Your task to perform on an android device: Open eBay Image 0: 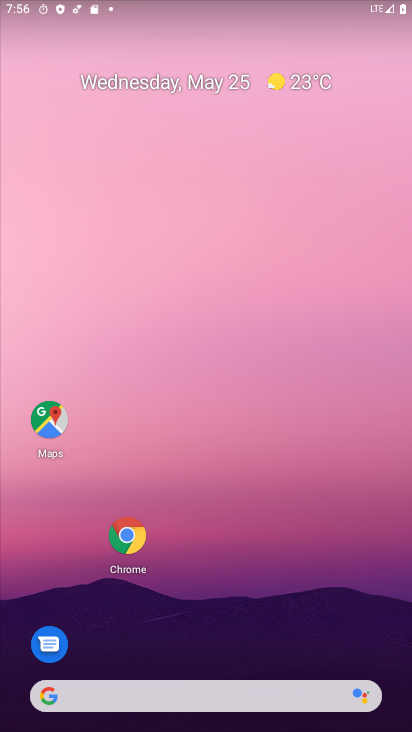
Step 0: click (127, 547)
Your task to perform on an android device: Open eBay Image 1: 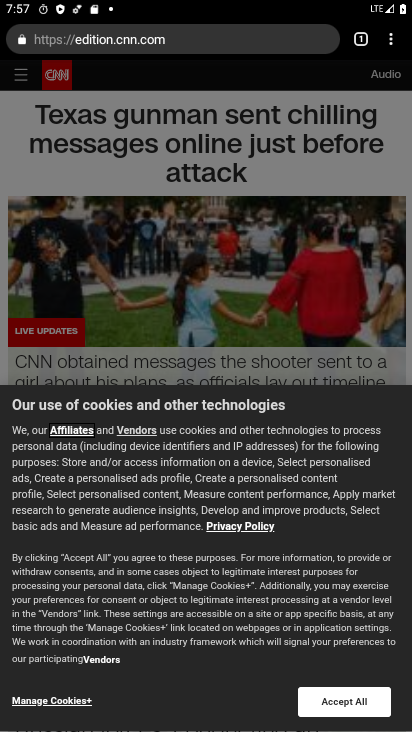
Step 1: click (203, 40)
Your task to perform on an android device: Open eBay Image 2: 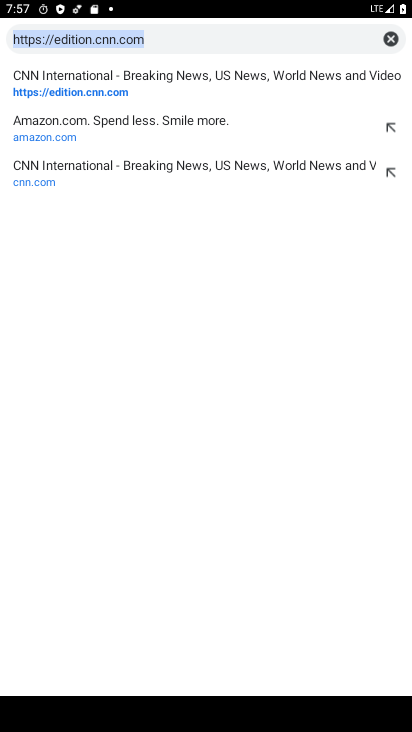
Step 2: type "ebay"
Your task to perform on an android device: Open eBay Image 3: 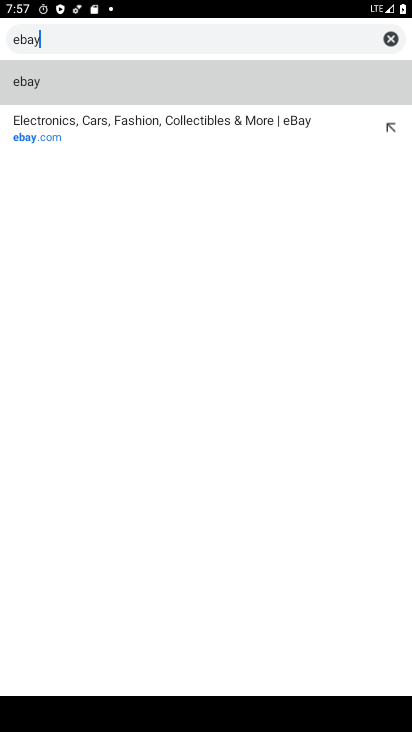
Step 3: click (117, 137)
Your task to perform on an android device: Open eBay Image 4: 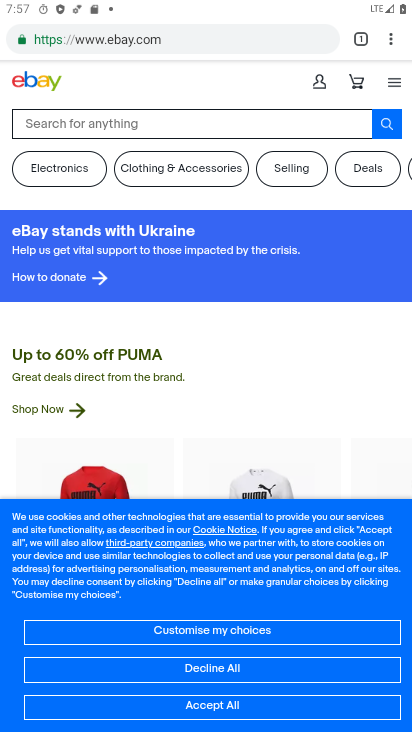
Step 4: task complete